Your task to perform on an android device: Search for seafood restaurants on Google Maps Image 0: 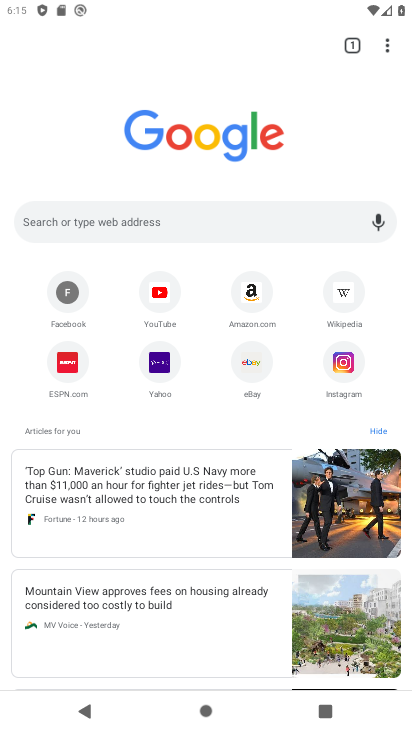
Step 0: press home button
Your task to perform on an android device: Search for seafood restaurants on Google Maps Image 1: 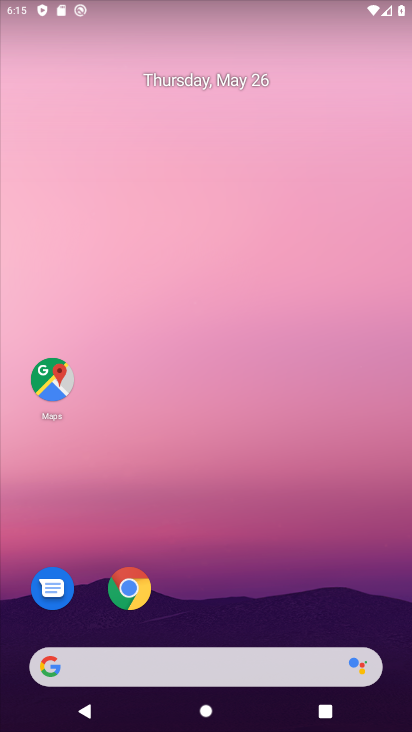
Step 1: drag from (381, 614) to (216, 43)
Your task to perform on an android device: Search for seafood restaurants on Google Maps Image 2: 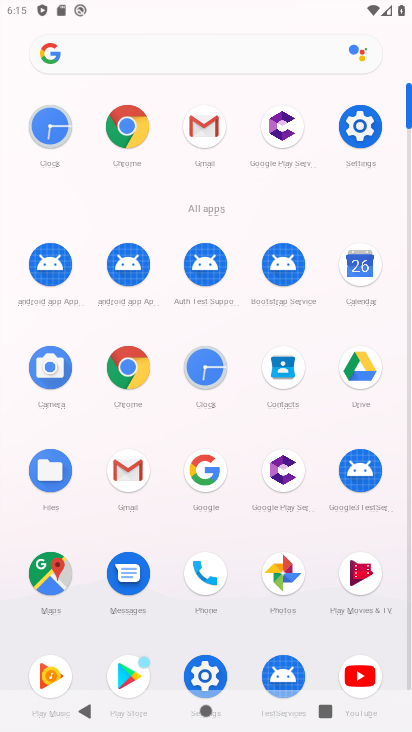
Step 2: click (56, 580)
Your task to perform on an android device: Search for seafood restaurants on Google Maps Image 3: 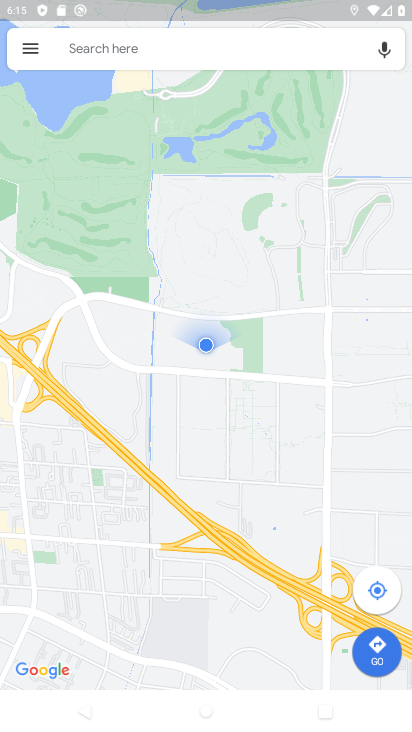
Step 3: click (92, 42)
Your task to perform on an android device: Search for seafood restaurants on Google Maps Image 4: 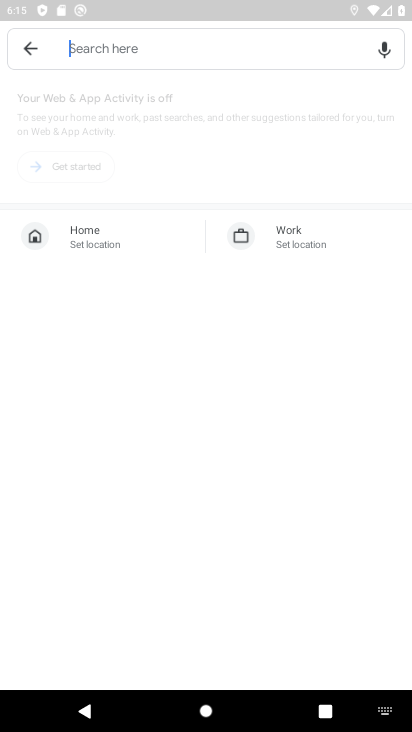
Step 4: click (77, 174)
Your task to perform on an android device: Search for seafood restaurants on Google Maps Image 5: 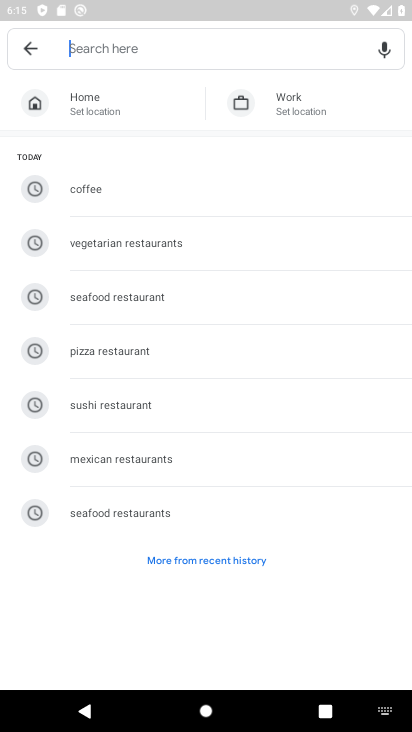
Step 5: click (134, 516)
Your task to perform on an android device: Search for seafood restaurants on Google Maps Image 6: 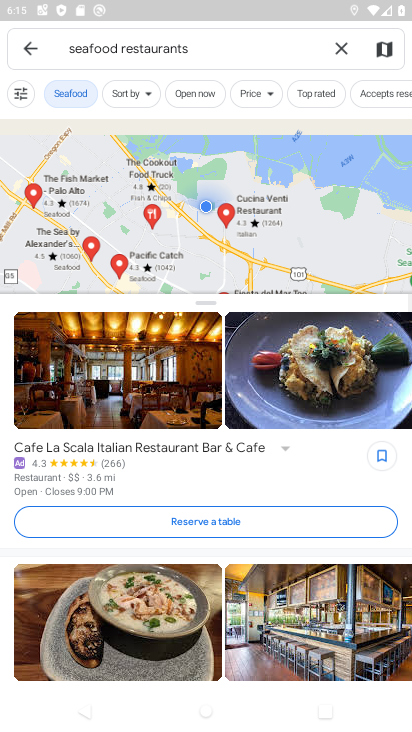
Step 6: task complete